Your task to perform on an android device: Show me popular games on the Play Store Image 0: 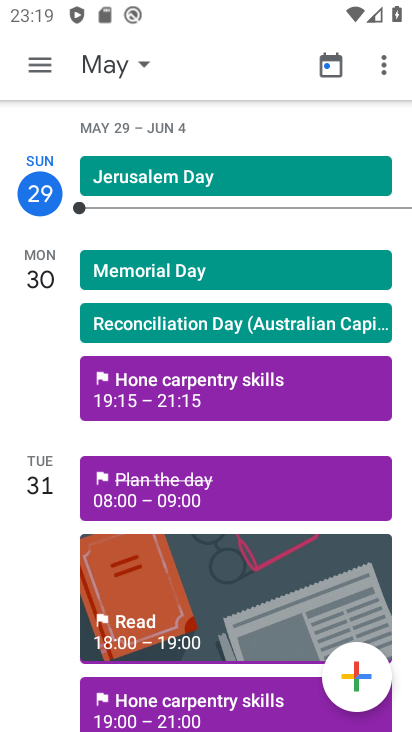
Step 0: press home button
Your task to perform on an android device: Show me popular games on the Play Store Image 1: 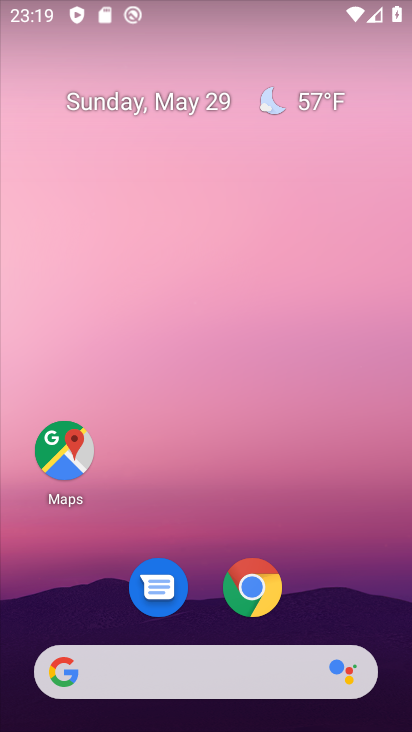
Step 1: drag from (382, 611) to (228, 122)
Your task to perform on an android device: Show me popular games on the Play Store Image 2: 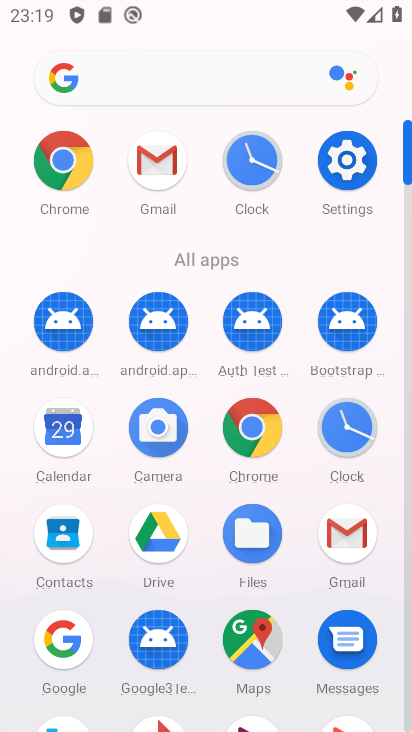
Step 2: click (409, 721)
Your task to perform on an android device: Show me popular games on the Play Store Image 3: 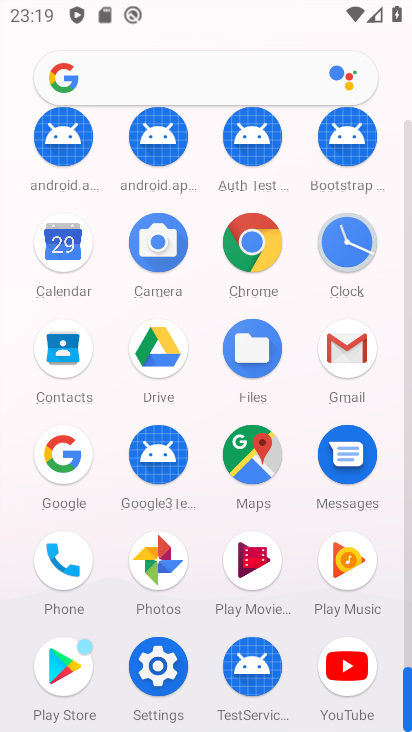
Step 3: click (77, 664)
Your task to perform on an android device: Show me popular games on the Play Store Image 4: 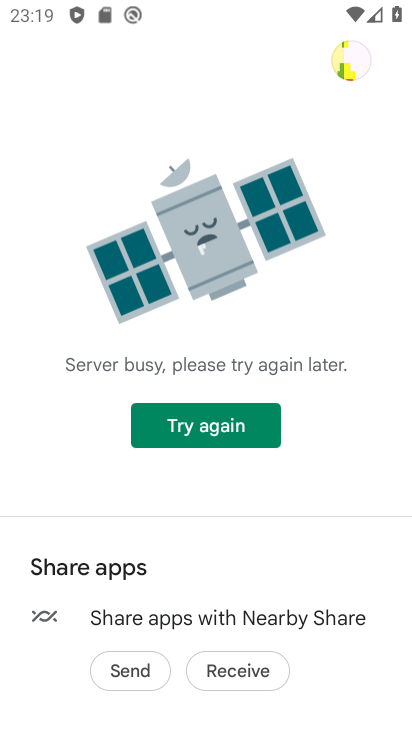
Step 4: task complete